Your task to perform on an android device: turn on location history Image 0: 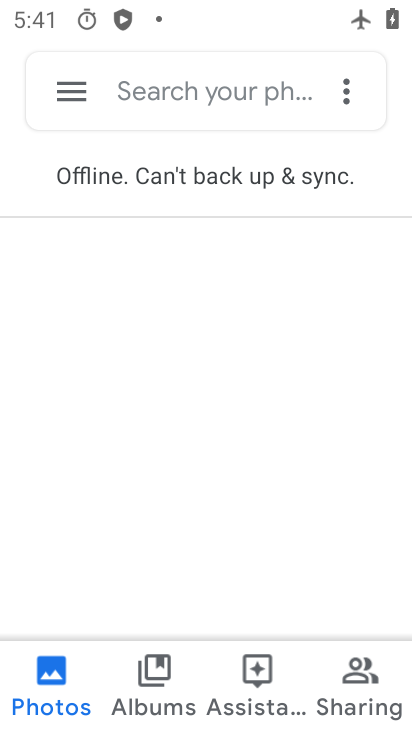
Step 0: press home button
Your task to perform on an android device: turn on location history Image 1: 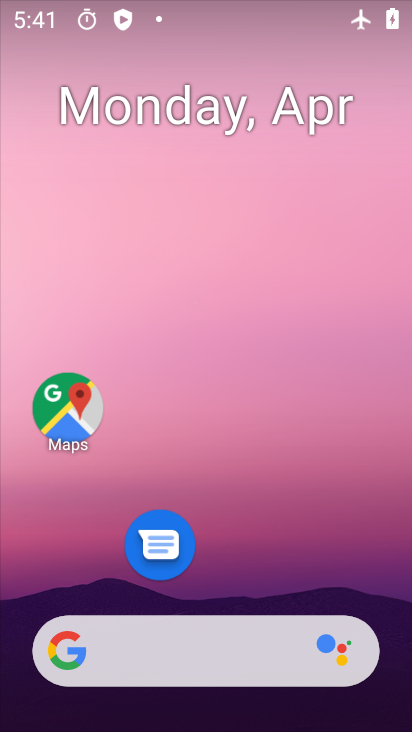
Step 1: drag from (316, 554) to (353, 118)
Your task to perform on an android device: turn on location history Image 2: 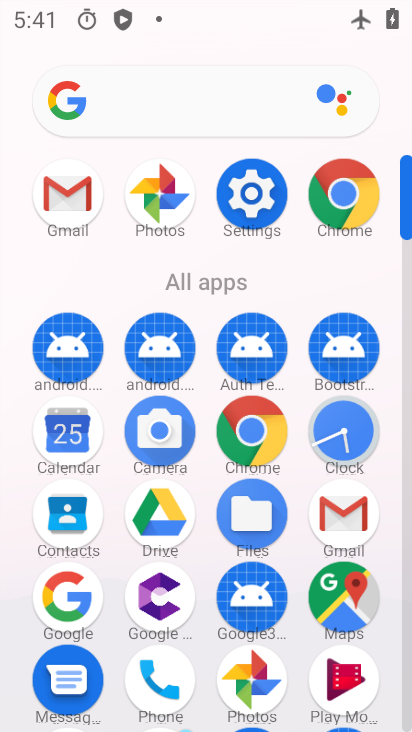
Step 2: click (246, 200)
Your task to perform on an android device: turn on location history Image 3: 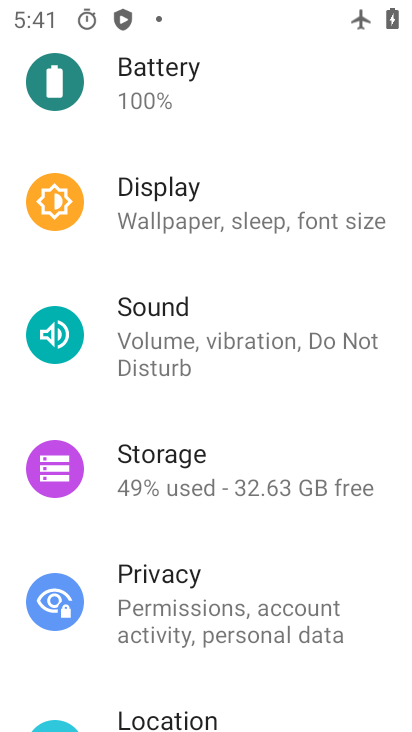
Step 3: drag from (231, 691) to (291, 202)
Your task to perform on an android device: turn on location history Image 4: 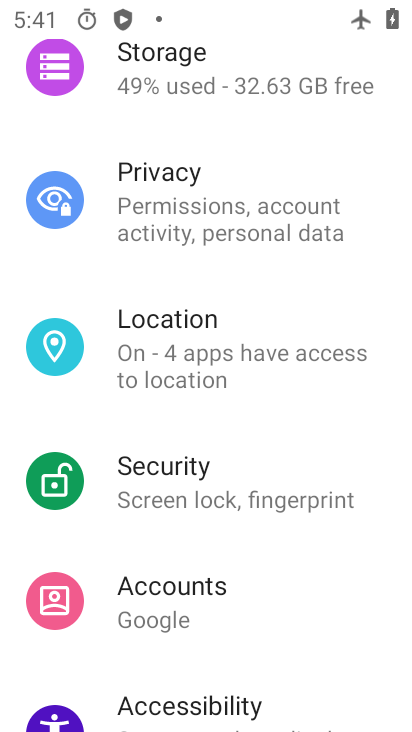
Step 4: click (180, 327)
Your task to perform on an android device: turn on location history Image 5: 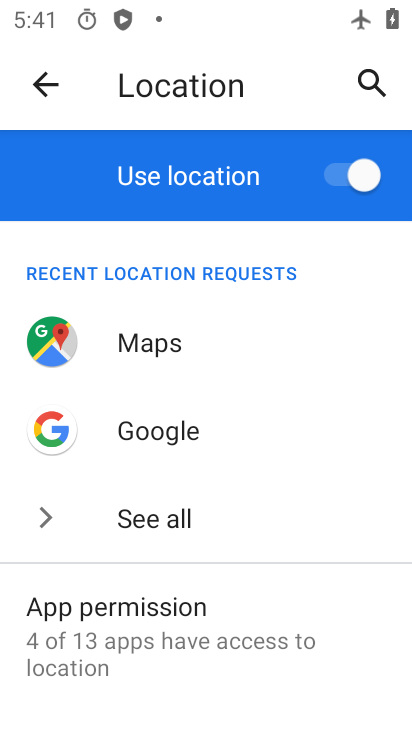
Step 5: task complete